Your task to perform on an android device: Turn on the flashlight Image 0: 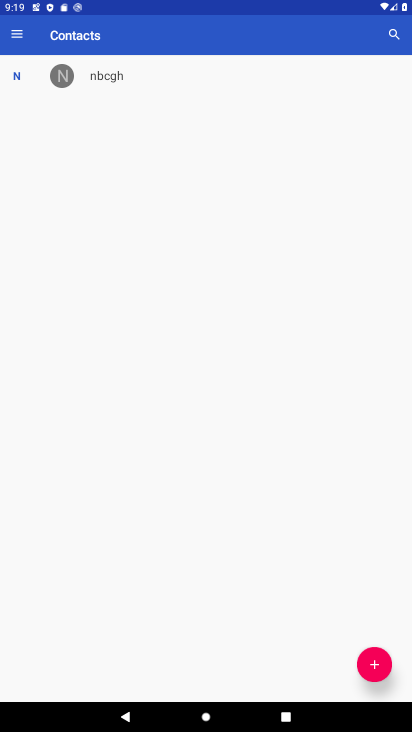
Step 0: press home button
Your task to perform on an android device: Turn on the flashlight Image 1: 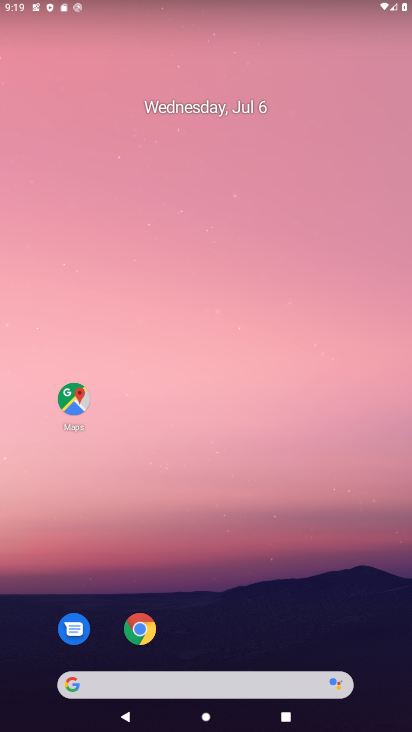
Step 1: drag from (220, 626) to (195, 51)
Your task to perform on an android device: Turn on the flashlight Image 2: 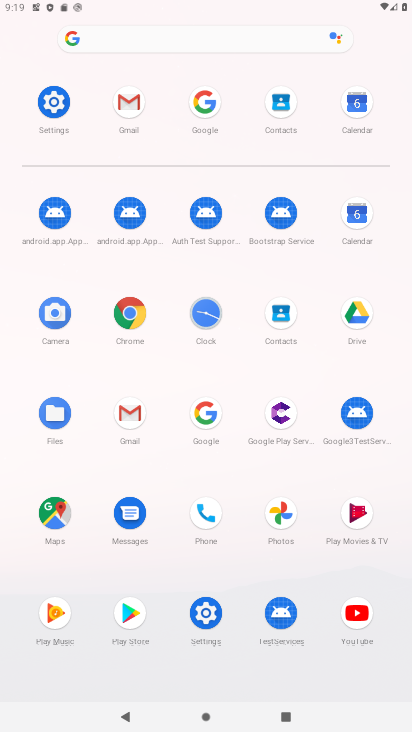
Step 2: click (47, 97)
Your task to perform on an android device: Turn on the flashlight Image 3: 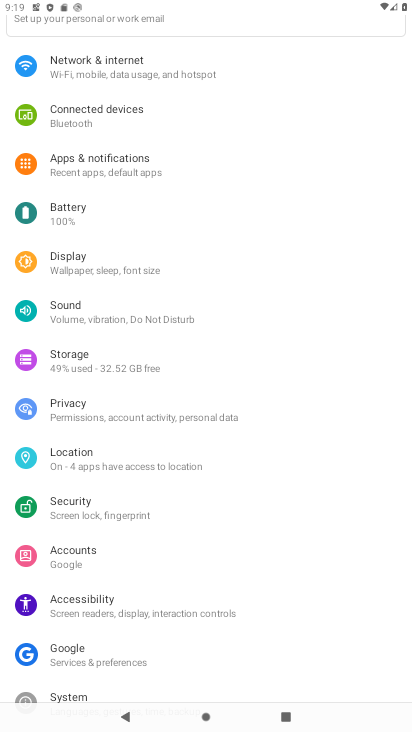
Step 3: drag from (158, 124) to (188, 506)
Your task to perform on an android device: Turn on the flashlight Image 4: 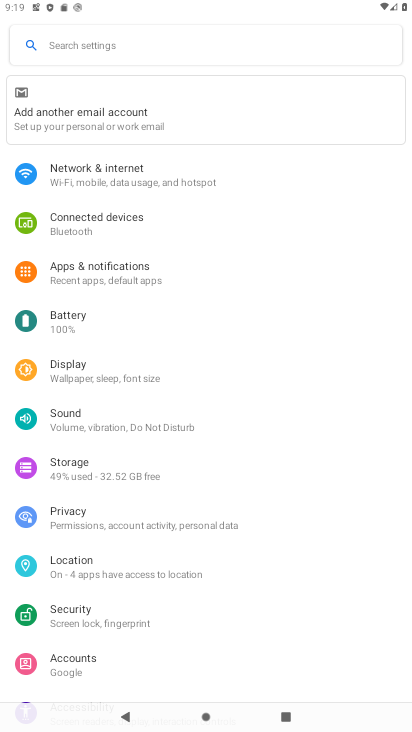
Step 4: click (139, 41)
Your task to perform on an android device: Turn on the flashlight Image 5: 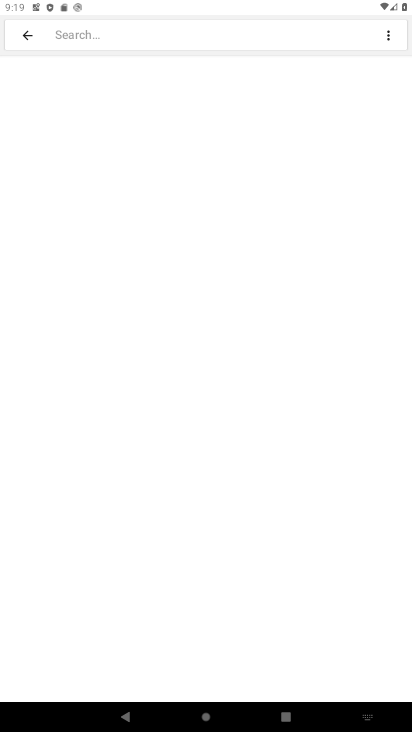
Step 5: type "flash"
Your task to perform on an android device: Turn on the flashlight Image 6: 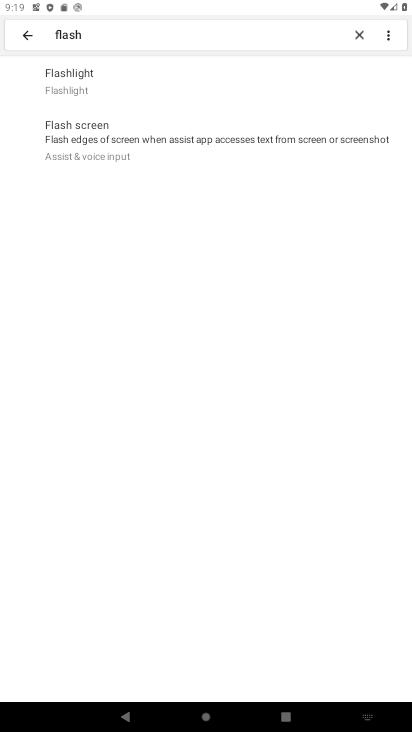
Step 6: task complete